Your task to perform on an android device: Go to location settings Image 0: 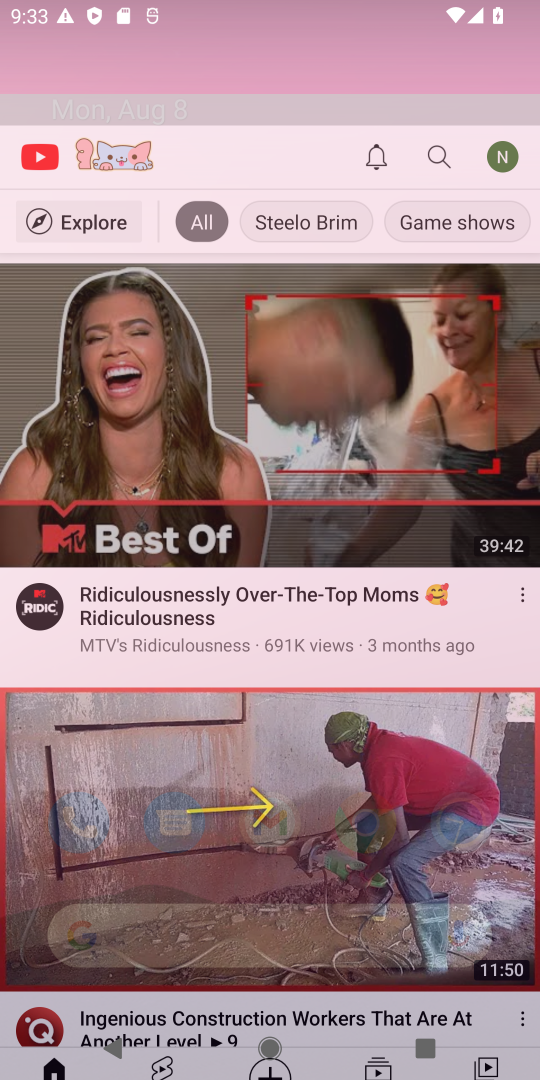
Step 0: press home button
Your task to perform on an android device: Go to location settings Image 1: 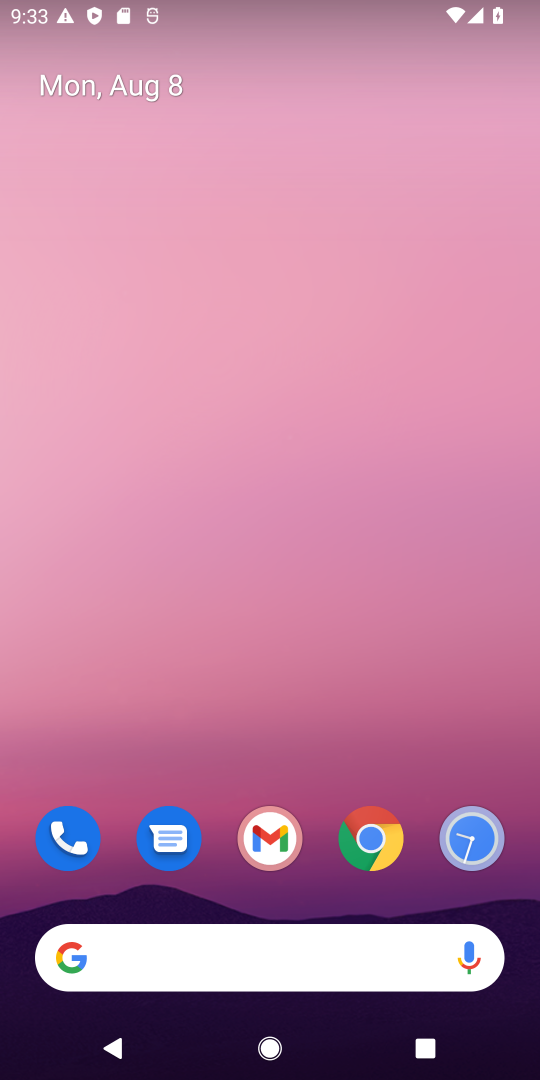
Step 1: drag from (350, 703) to (350, 61)
Your task to perform on an android device: Go to location settings Image 2: 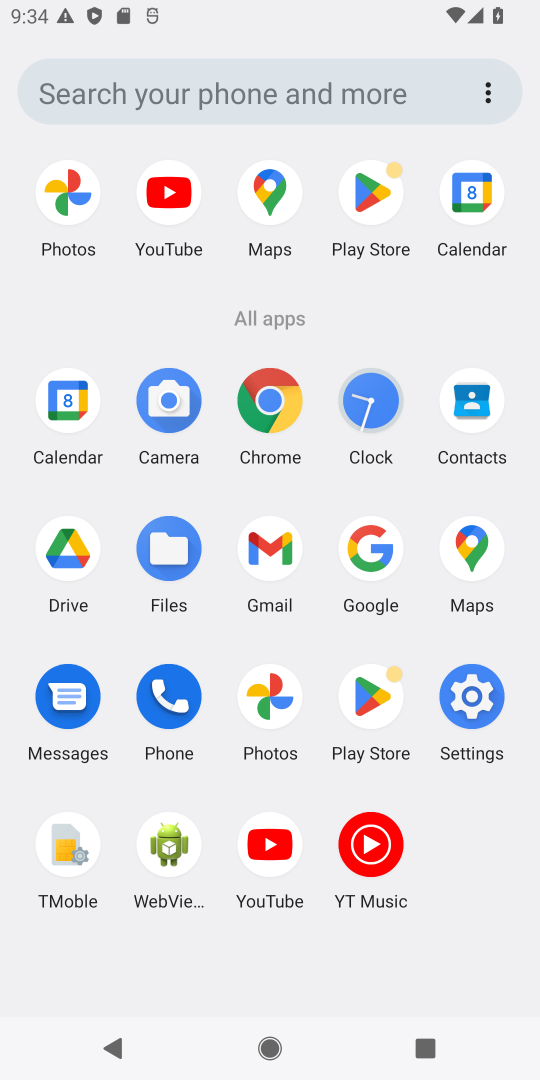
Step 2: click (470, 708)
Your task to perform on an android device: Go to location settings Image 3: 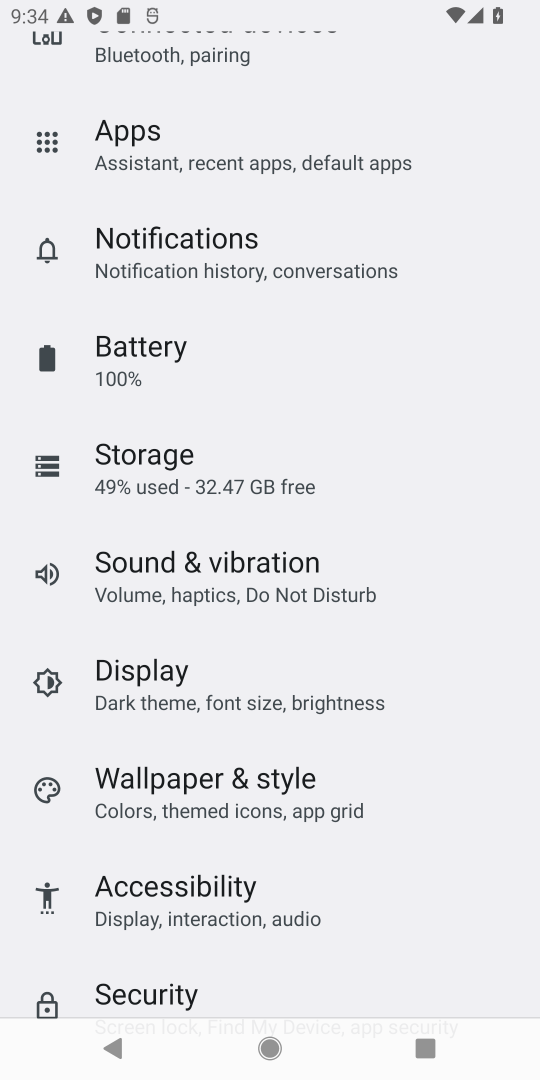
Step 3: drag from (455, 845) to (360, 277)
Your task to perform on an android device: Go to location settings Image 4: 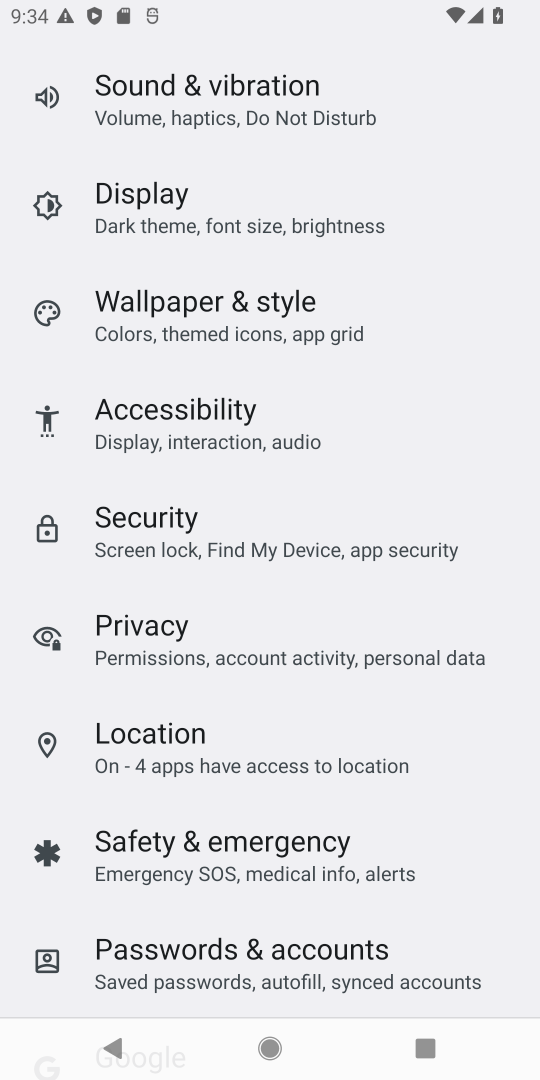
Step 4: click (160, 761)
Your task to perform on an android device: Go to location settings Image 5: 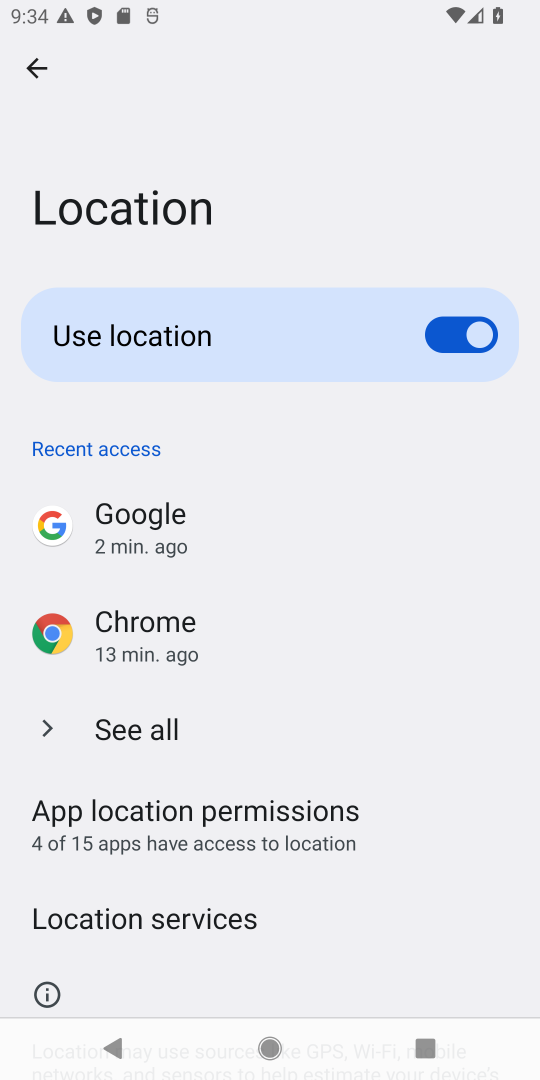
Step 5: task complete